Your task to perform on an android device: Go to eBay Image 0: 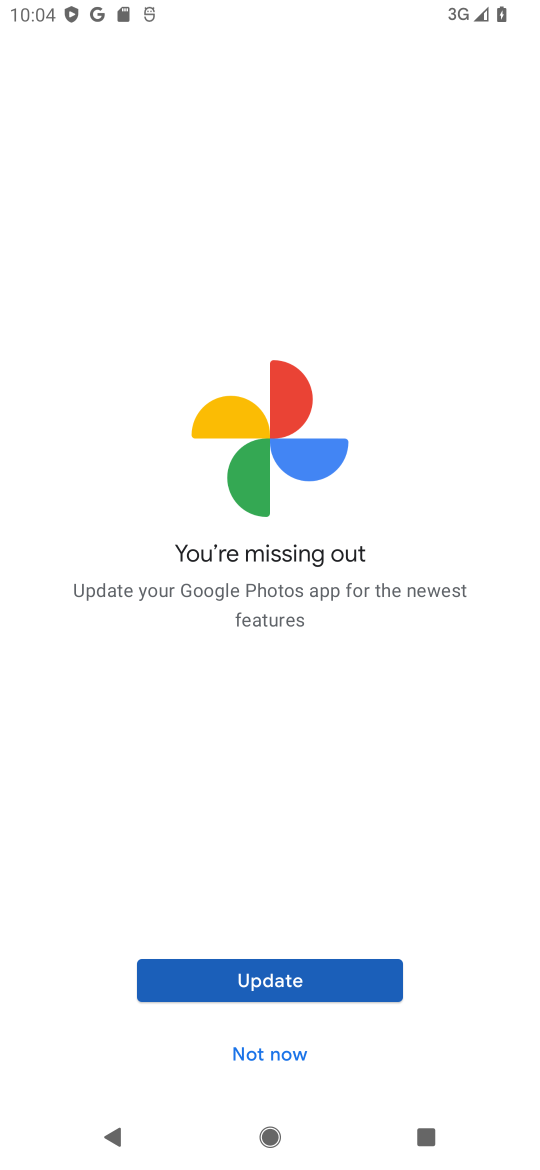
Step 0: press home button
Your task to perform on an android device: Go to eBay Image 1: 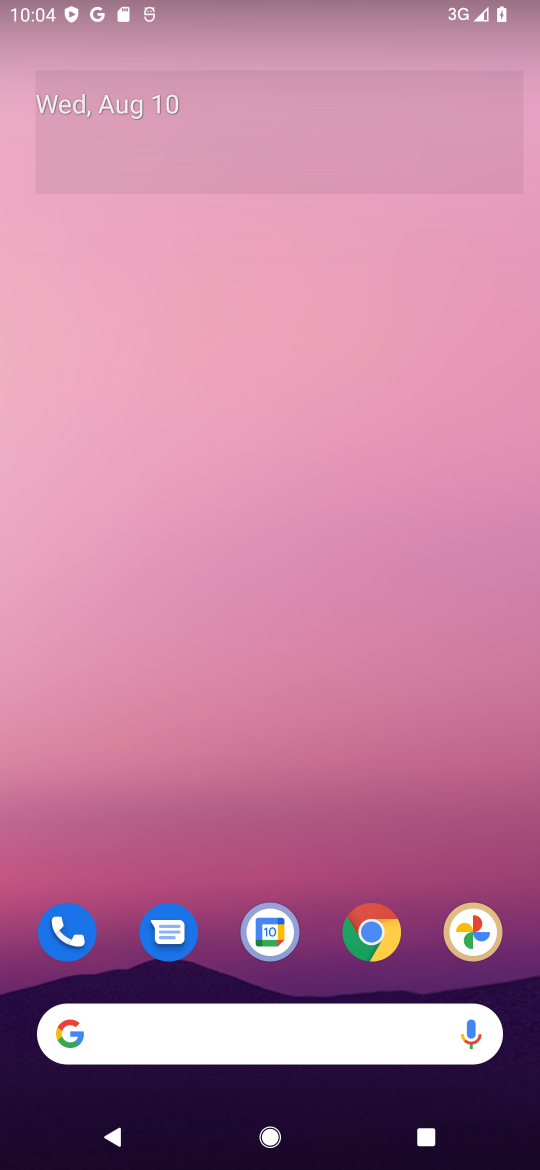
Step 1: click (370, 931)
Your task to perform on an android device: Go to eBay Image 2: 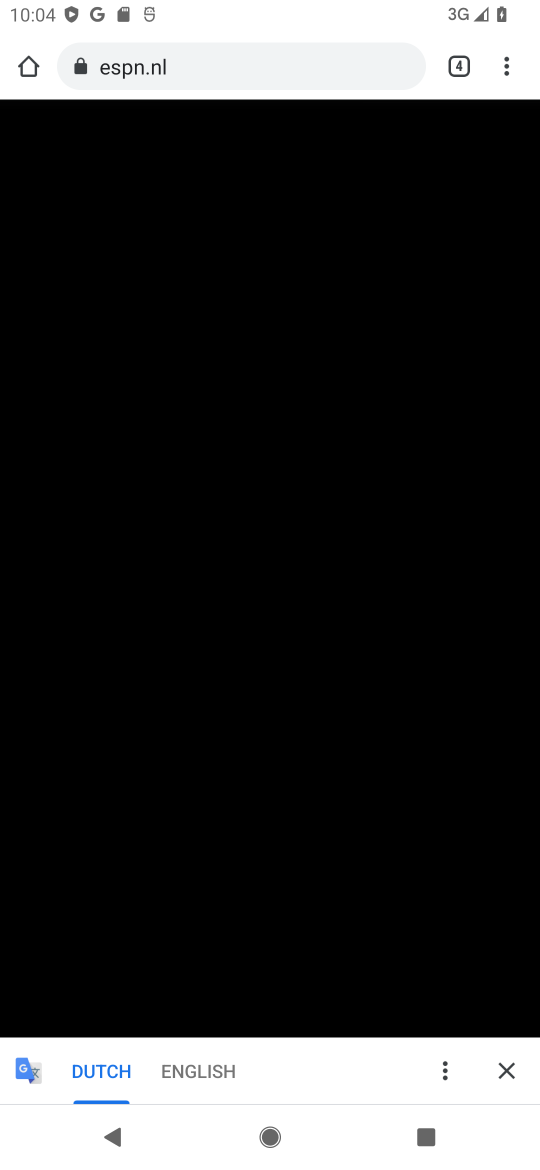
Step 2: click (479, 59)
Your task to perform on an android device: Go to eBay Image 3: 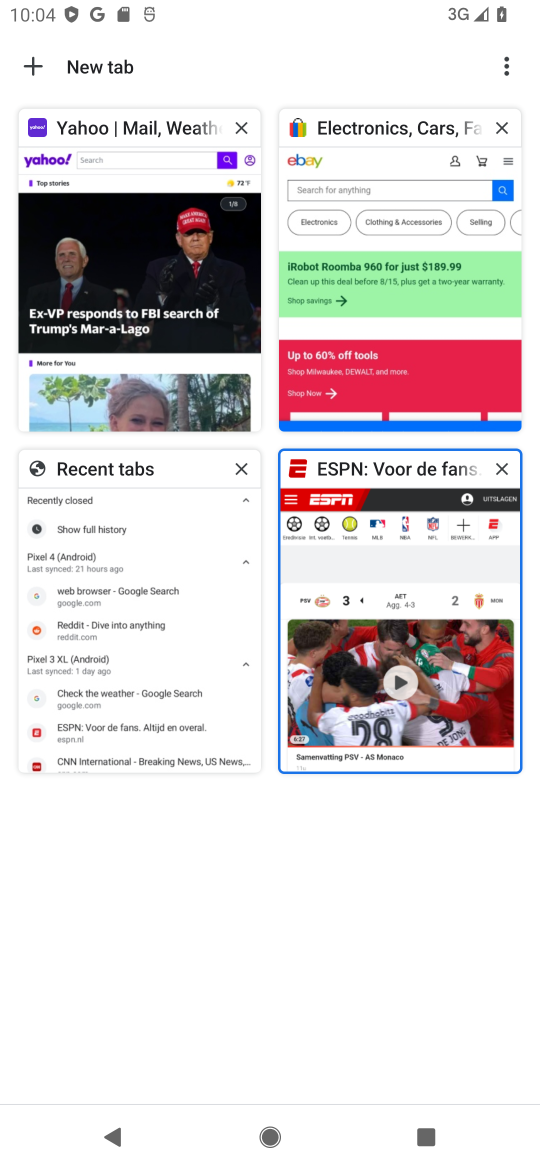
Step 3: click (487, 47)
Your task to perform on an android device: Go to eBay Image 4: 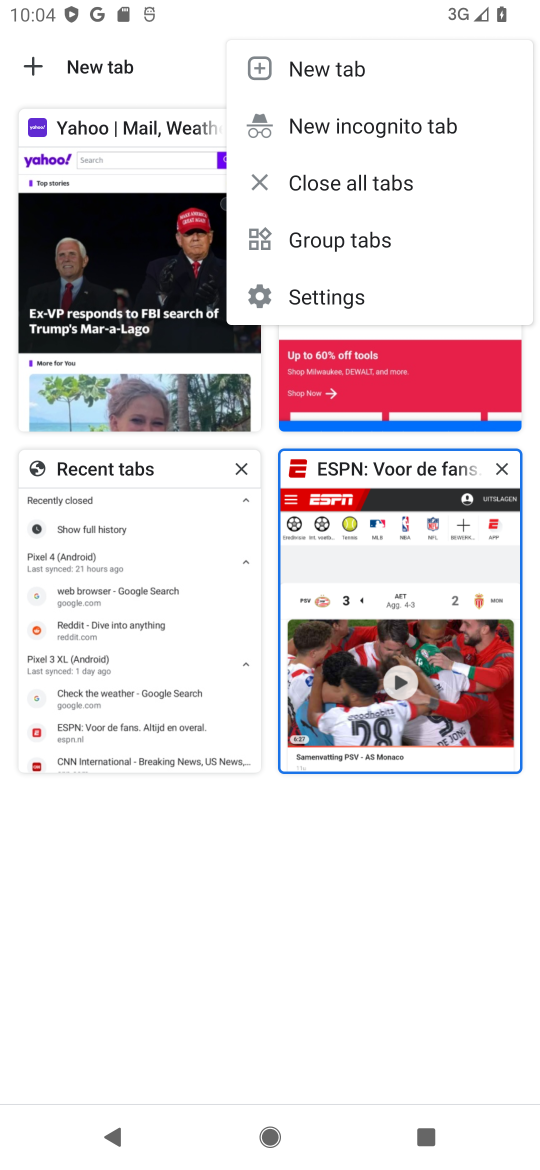
Step 4: click (33, 61)
Your task to perform on an android device: Go to eBay Image 5: 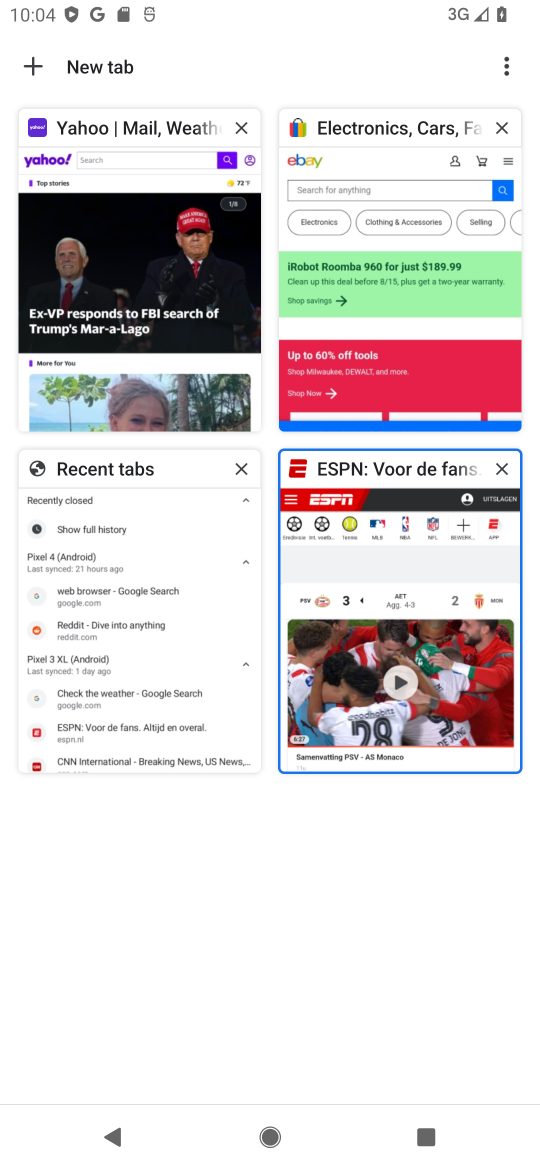
Step 5: click (29, 66)
Your task to perform on an android device: Go to eBay Image 6: 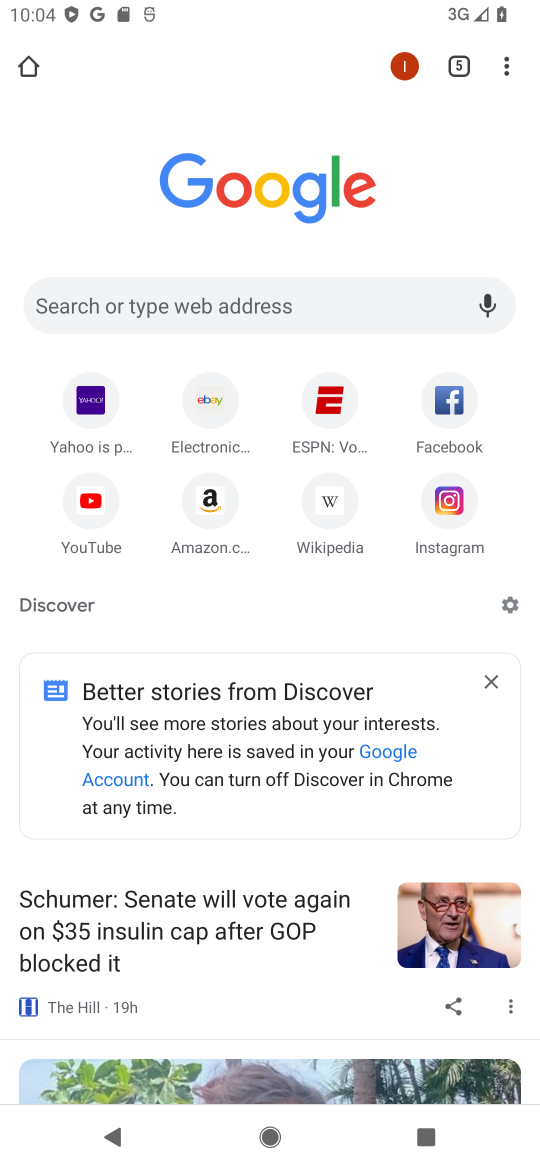
Step 6: click (207, 398)
Your task to perform on an android device: Go to eBay Image 7: 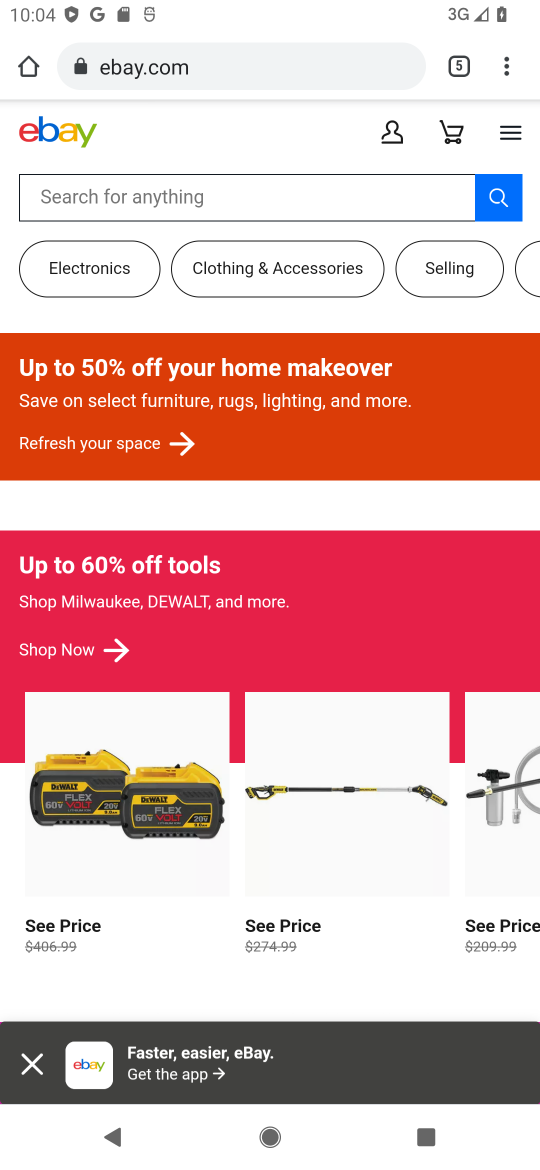
Step 7: task complete